Your task to perform on an android device: toggle notification dots Image 0: 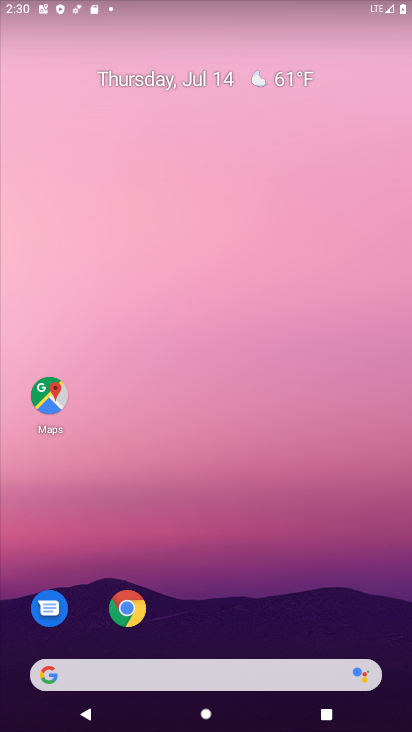
Step 0: drag from (211, 666) to (217, 335)
Your task to perform on an android device: toggle notification dots Image 1: 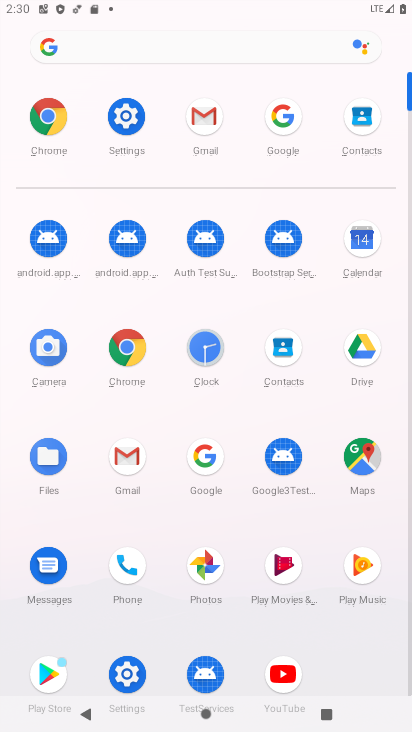
Step 1: click (132, 111)
Your task to perform on an android device: toggle notification dots Image 2: 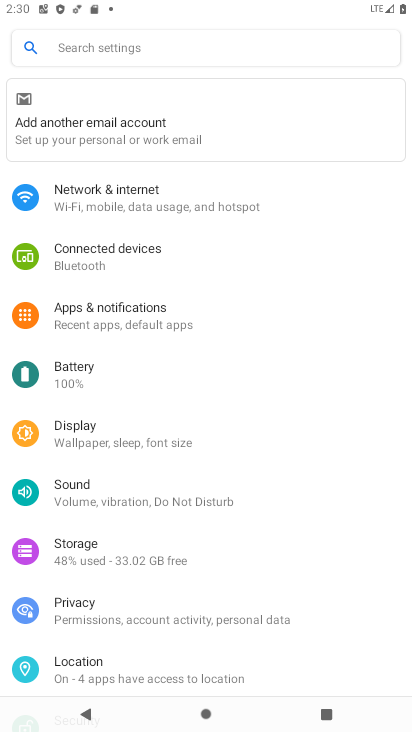
Step 2: click (100, 317)
Your task to perform on an android device: toggle notification dots Image 3: 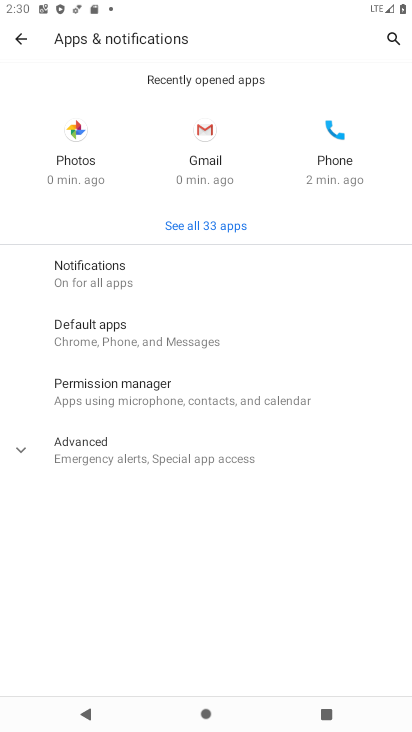
Step 3: click (89, 448)
Your task to perform on an android device: toggle notification dots Image 4: 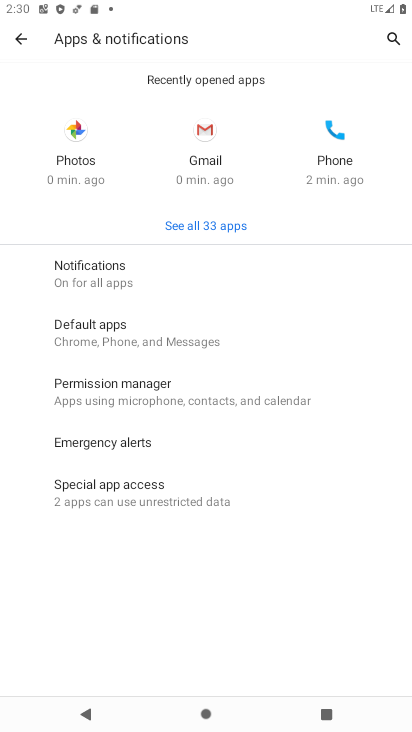
Step 4: click (97, 275)
Your task to perform on an android device: toggle notification dots Image 5: 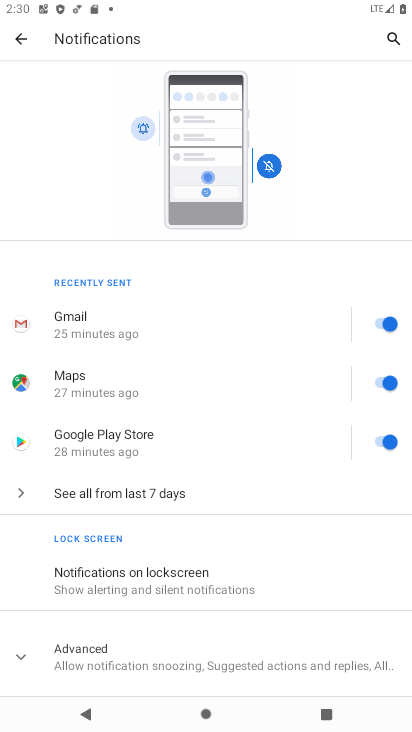
Step 5: click (114, 657)
Your task to perform on an android device: toggle notification dots Image 6: 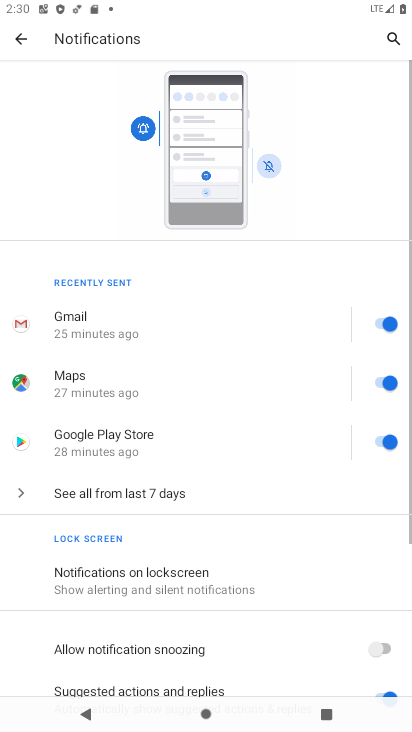
Step 6: drag from (244, 632) to (243, 350)
Your task to perform on an android device: toggle notification dots Image 7: 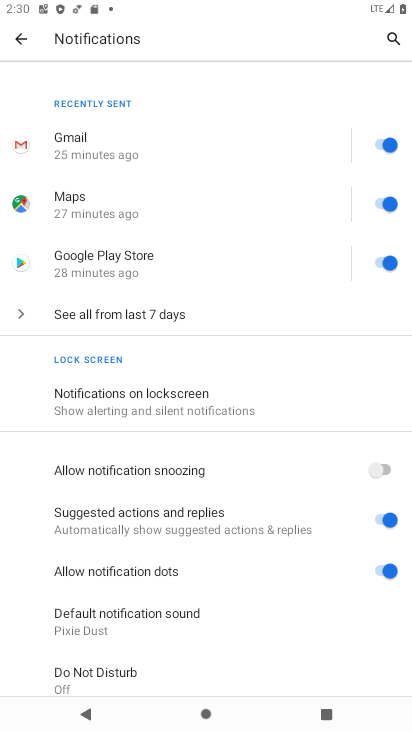
Step 7: click (374, 567)
Your task to perform on an android device: toggle notification dots Image 8: 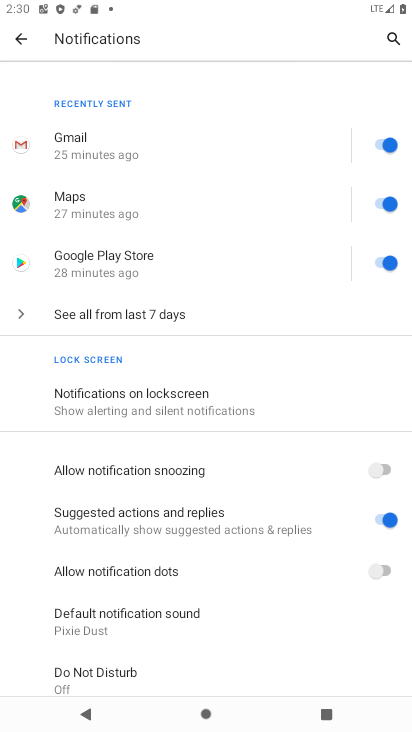
Step 8: task complete